Your task to perform on an android device: turn off wifi Image 0: 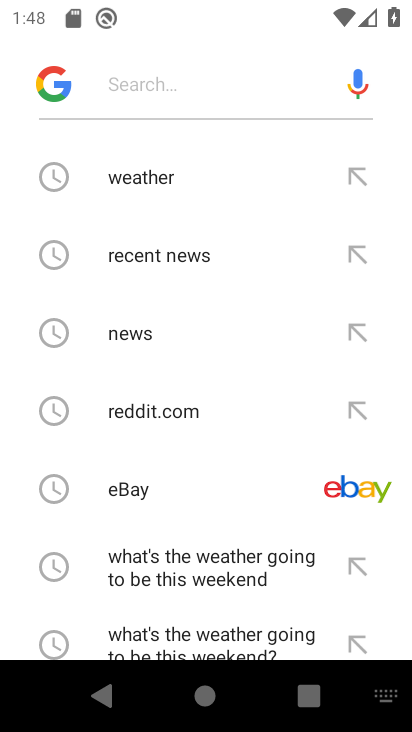
Step 0: press home button
Your task to perform on an android device: turn off wifi Image 1: 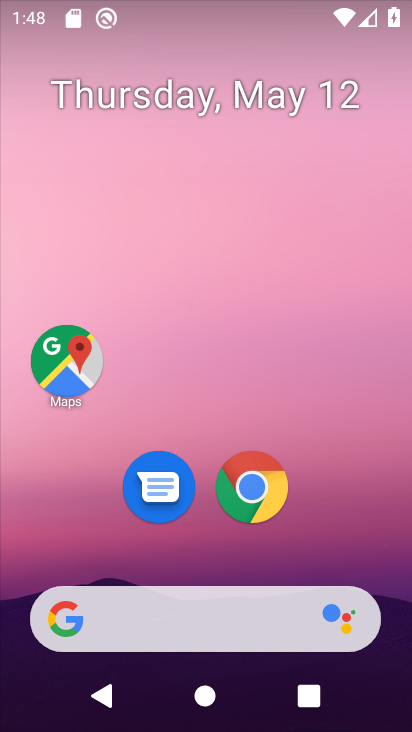
Step 1: drag from (328, 313) to (354, 75)
Your task to perform on an android device: turn off wifi Image 2: 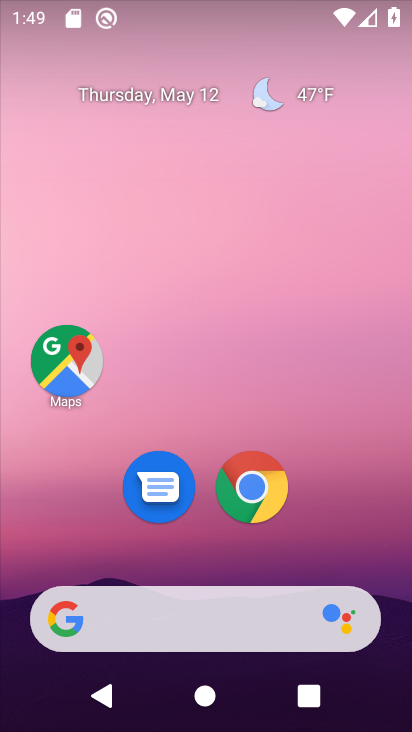
Step 2: drag from (331, 472) to (351, 125)
Your task to perform on an android device: turn off wifi Image 3: 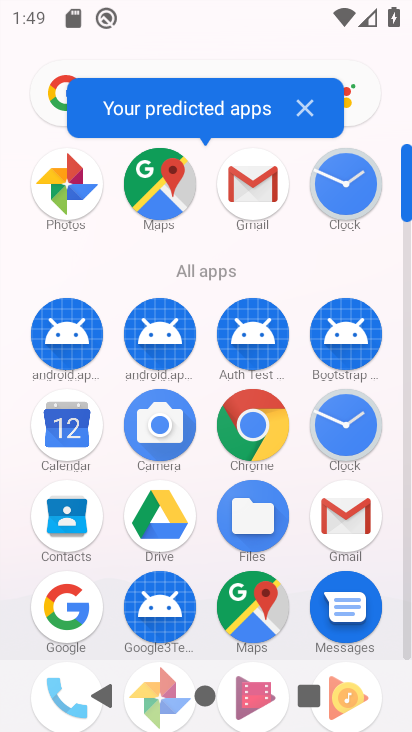
Step 3: drag from (300, 579) to (402, 239)
Your task to perform on an android device: turn off wifi Image 4: 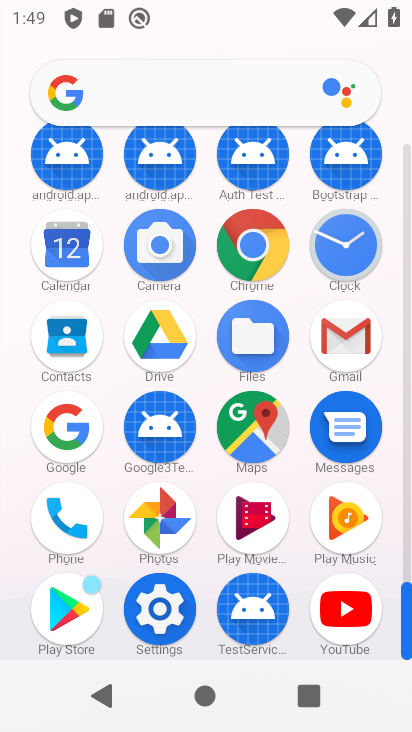
Step 4: click (154, 595)
Your task to perform on an android device: turn off wifi Image 5: 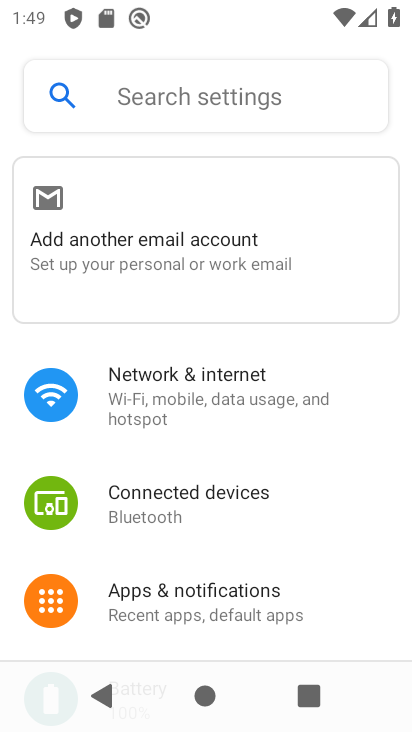
Step 5: click (232, 389)
Your task to perform on an android device: turn off wifi Image 6: 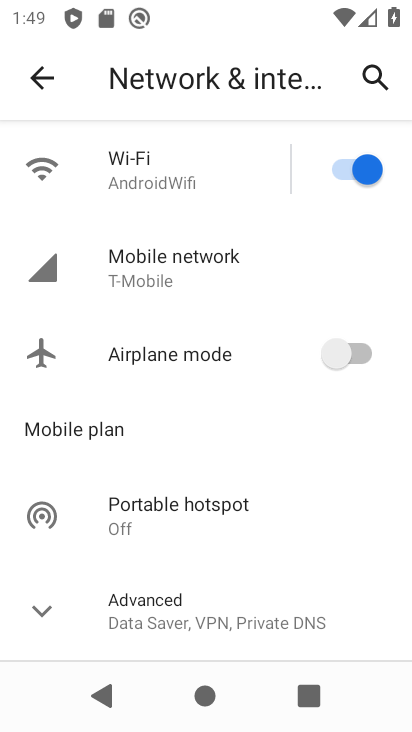
Step 6: click (382, 163)
Your task to perform on an android device: turn off wifi Image 7: 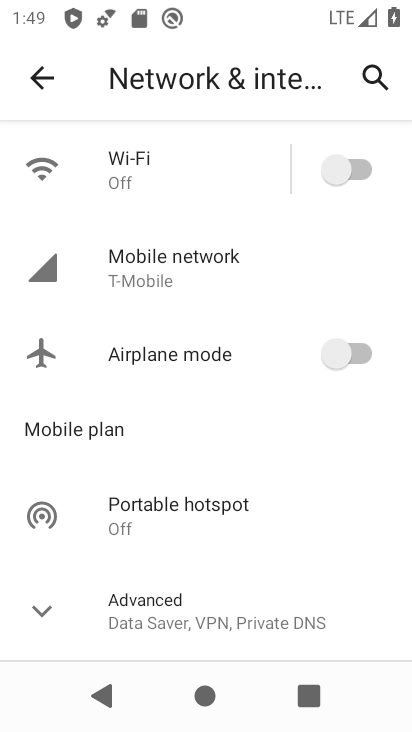
Step 7: task complete